Your task to perform on an android device: uninstall "Google Photos" Image 0: 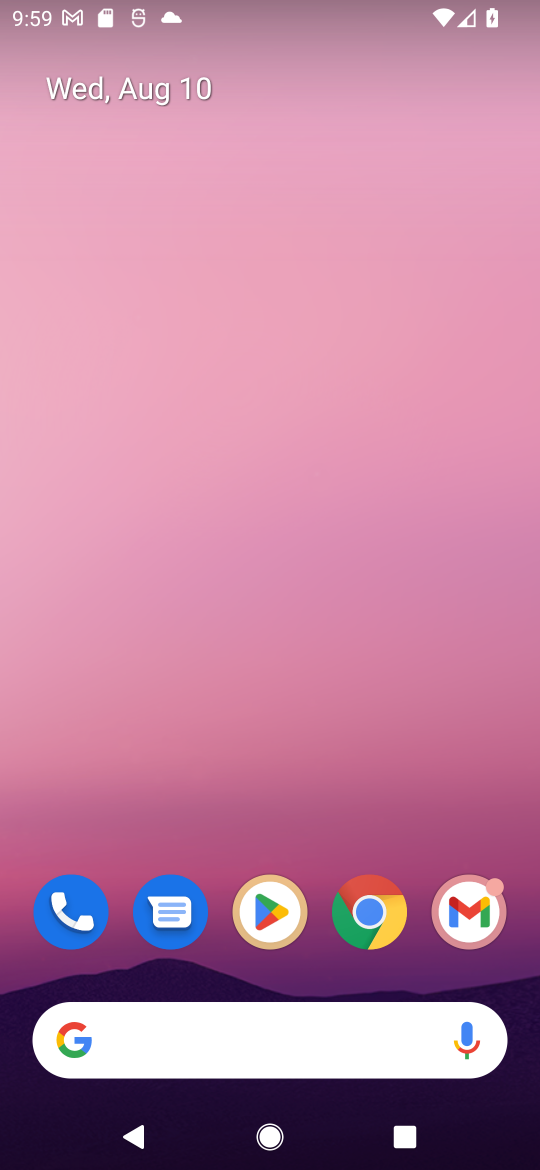
Step 0: drag from (524, 983) to (340, 95)
Your task to perform on an android device: uninstall "Google Photos" Image 1: 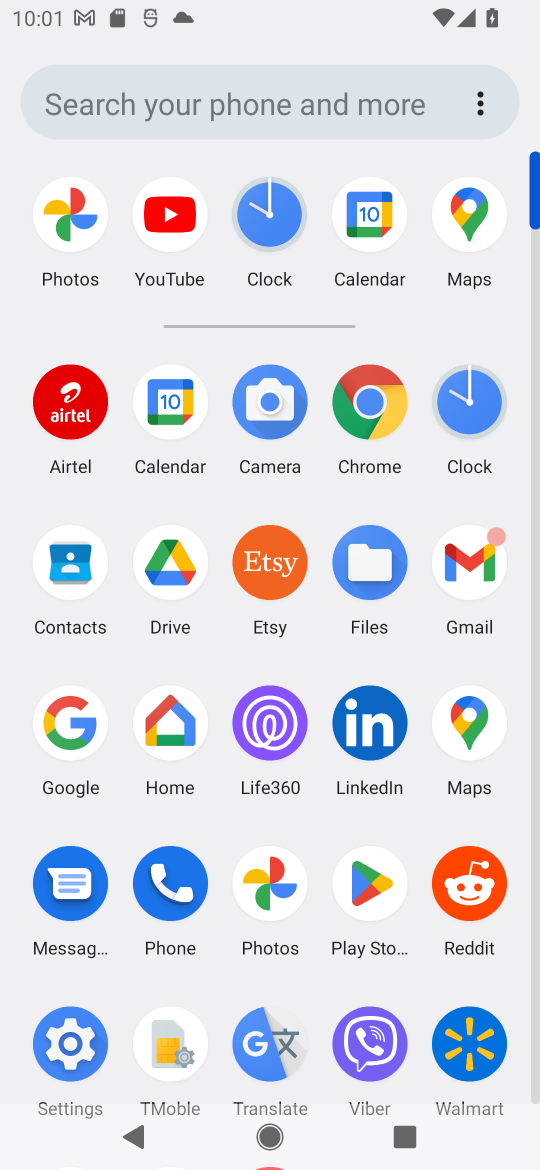
Step 1: click (364, 891)
Your task to perform on an android device: uninstall "Google Photos" Image 2: 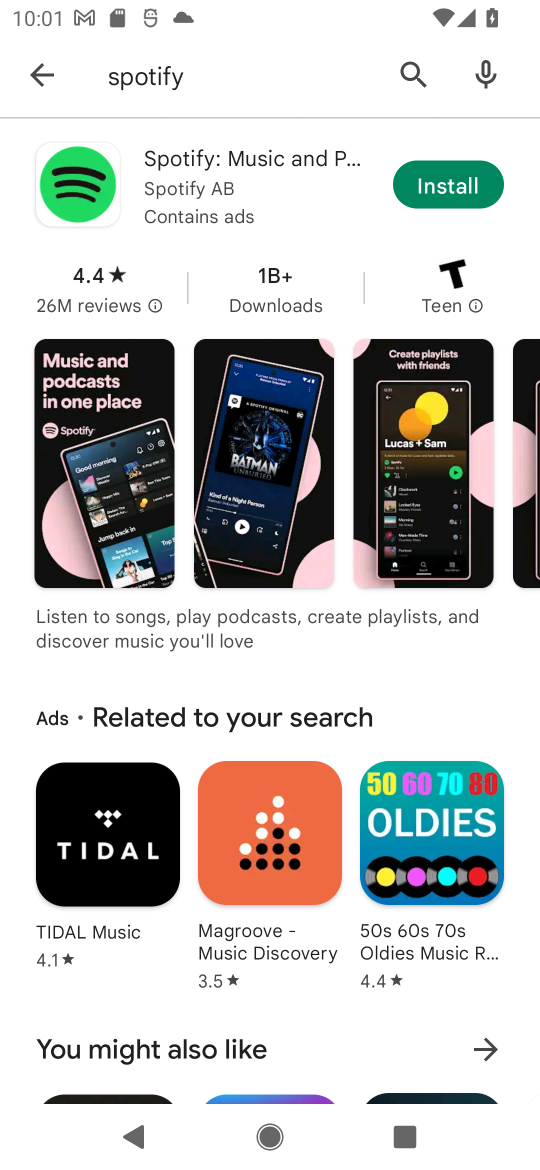
Step 2: press back button
Your task to perform on an android device: uninstall "Google Photos" Image 3: 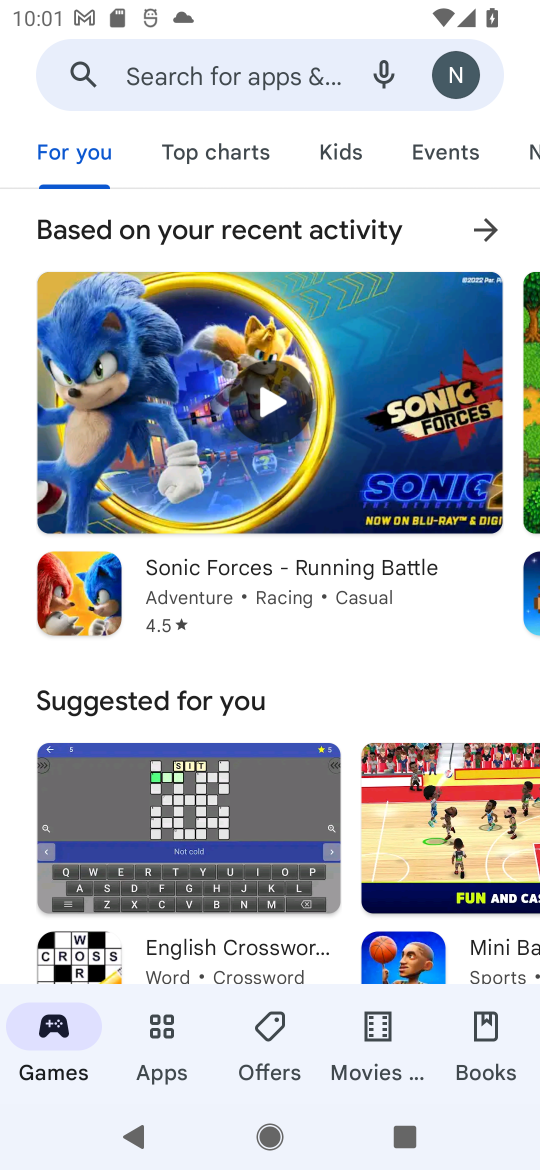
Step 3: click (192, 89)
Your task to perform on an android device: uninstall "Google Photos" Image 4: 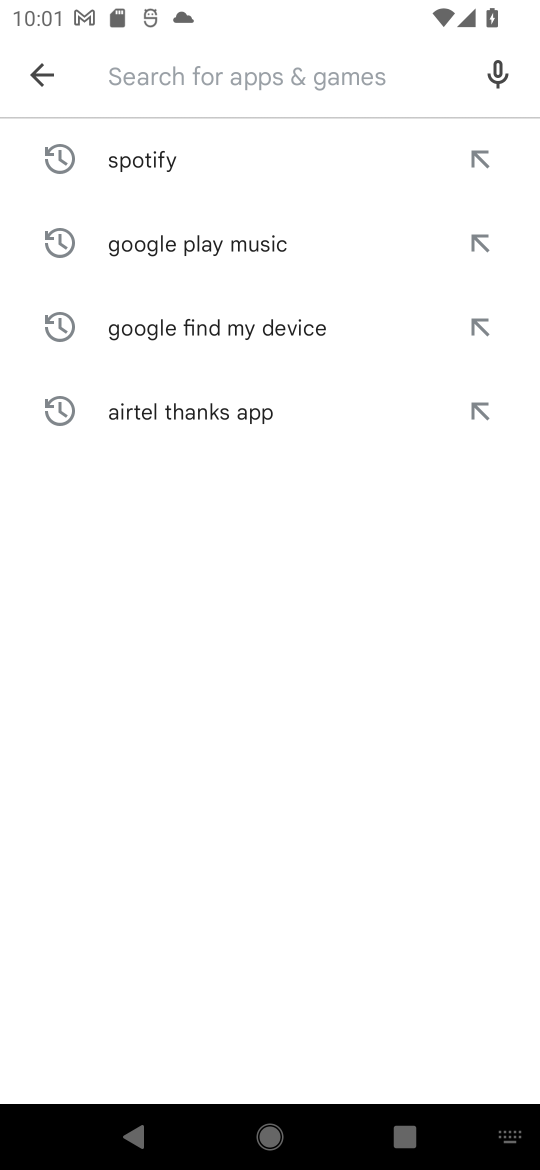
Step 4: type "Google Photos"
Your task to perform on an android device: uninstall "Google Photos" Image 5: 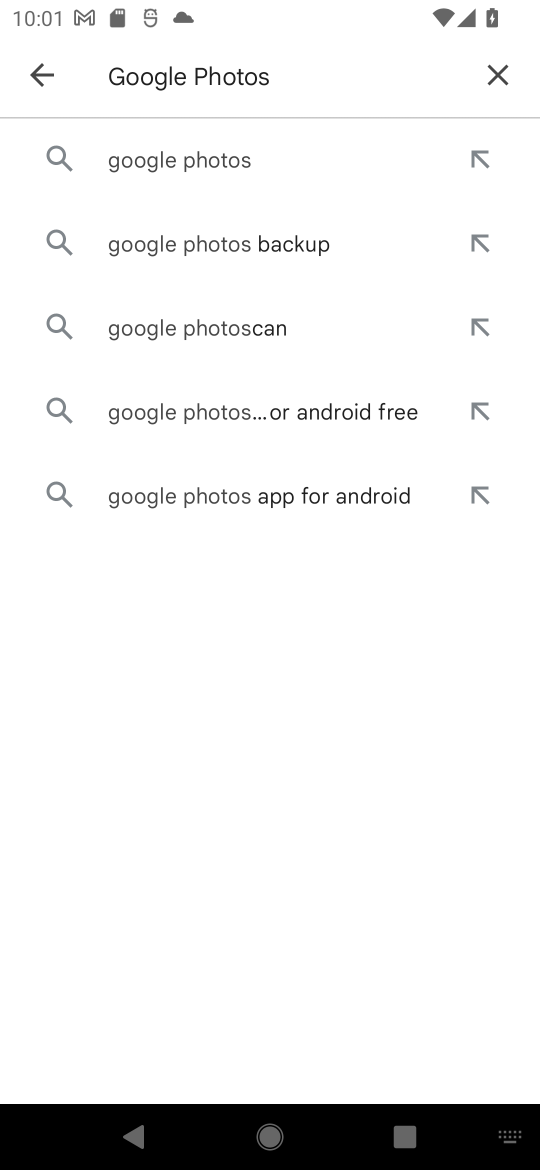
Step 5: click (131, 161)
Your task to perform on an android device: uninstall "Google Photos" Image 6: 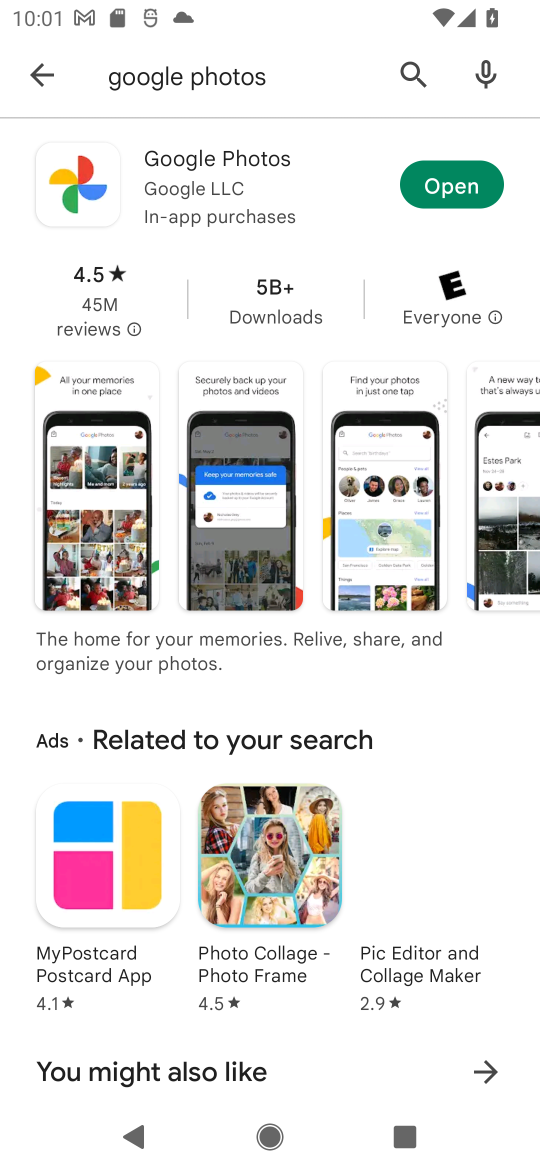
Step 6: task complete